Your task to perform on an android device: Open settings on Google Maps Image 0: 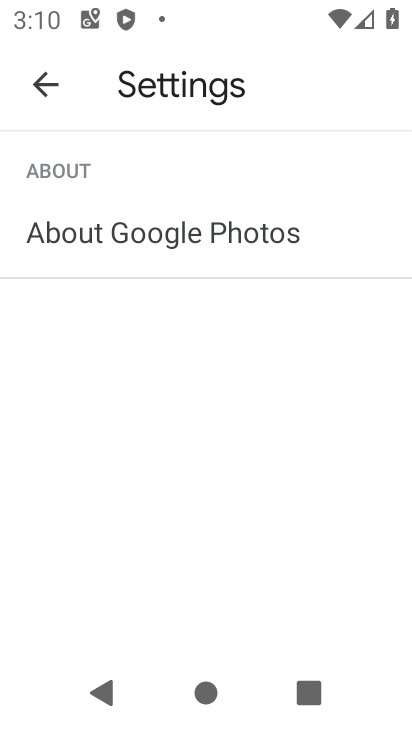
Step 0: press home button
Your task to perform on an android device: Open settings on Google Maps Image 1: 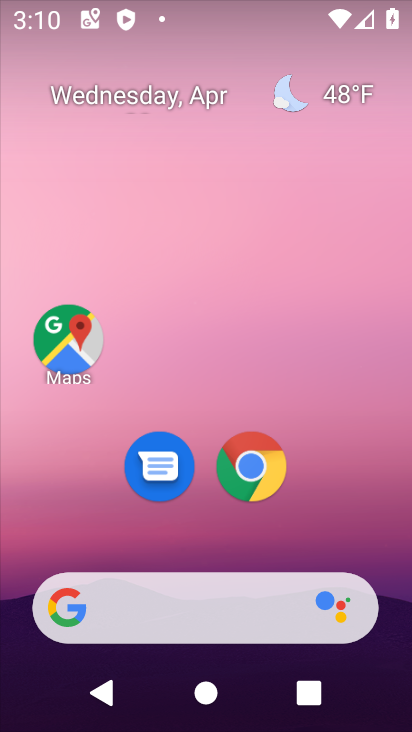
Step 1: click (65, 338)
Your task to perform on an android device: Open settings on Google Maps Image 2: 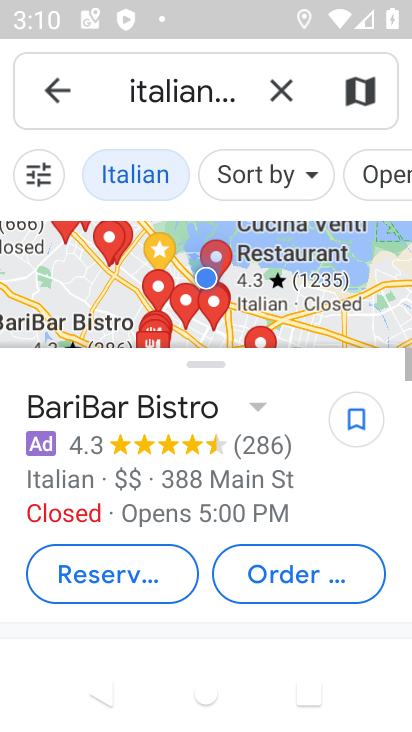
Step 2: click (281, 81)
Your task to perform on an android device: Open settings on Google Maps Image 3: 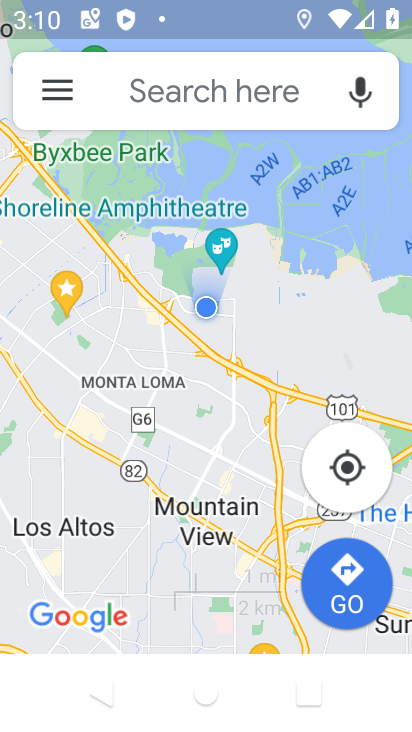
Step 3: click (54, 86)
Your task to perform on an android device: Open settings on Google Maps Image 4: 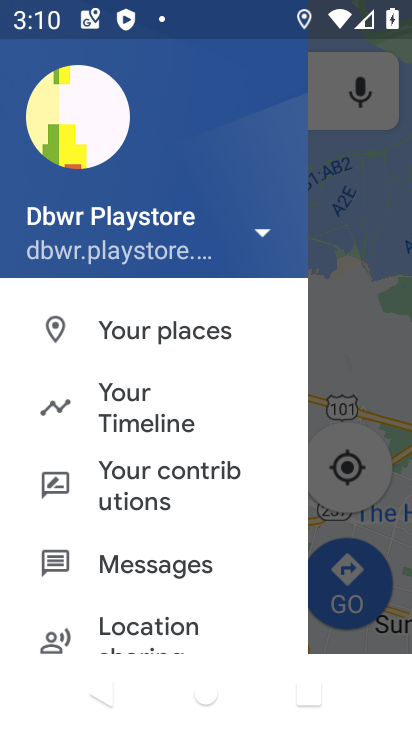
Step 4: drag from (170, 528) to (159, 60)
Your task to perform on an android device: Open settings on Google Maps Image 5: 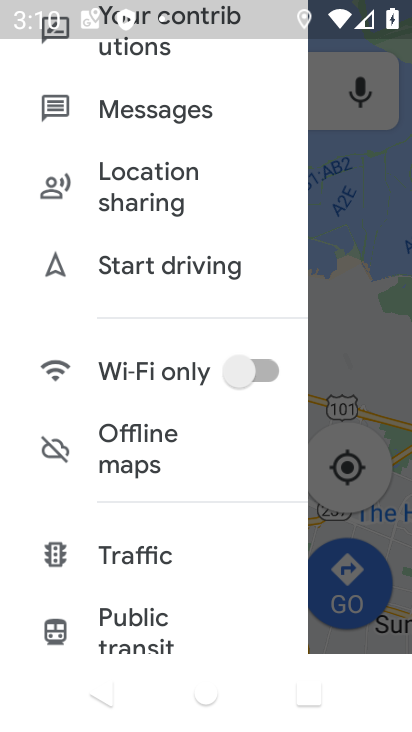
Step 5: drag from (183, 591) to (150, 60)
Your task to perform on an android device: Open settings on Google Maps Image 6: 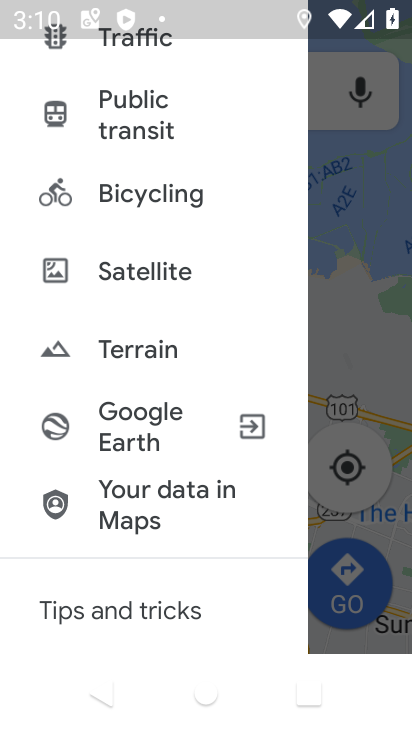
Step 6: drag from (170, 535) to (156, 96)
Your task to perform on an android device: Open settings on Google Maps Image 7: 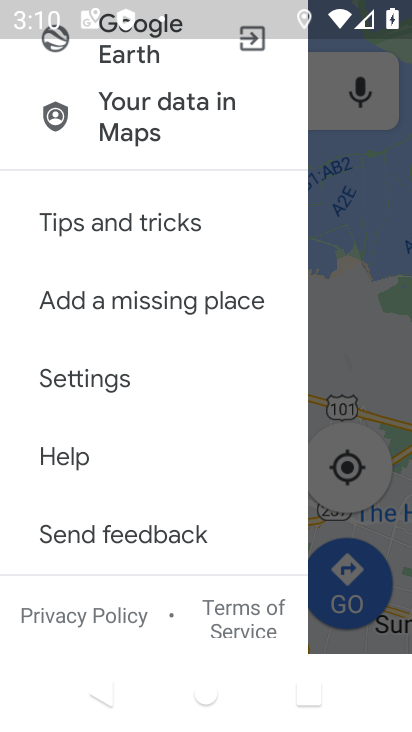
Step 7: click (130, 375)
Your task to perform on an android device: Open settings on Google Maps Image 8: 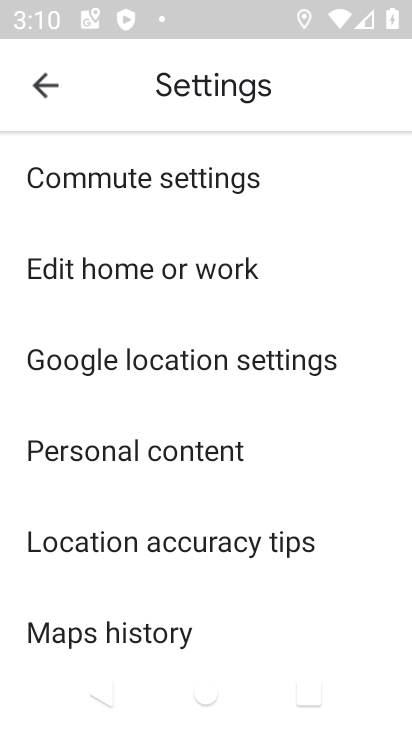
Step 8: task complete